Your task to perform on an android device: Search for Mexican restaurants on Maps Image 0: 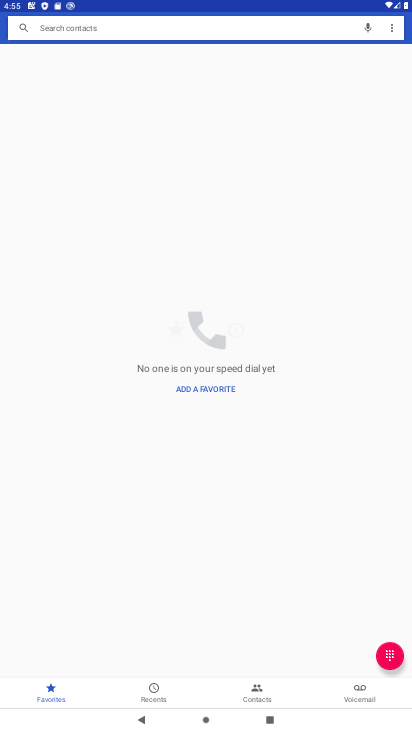
Step 0: press home button
Your task to perform on an android device: Search for Mexican restaurants on Maps Image 1: 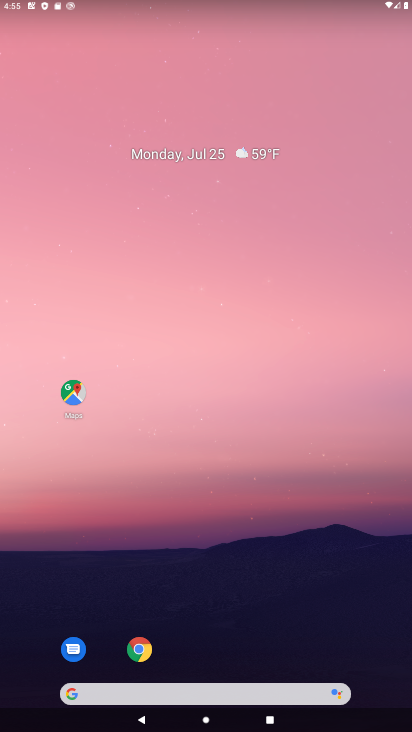
Step 1: drag from (273, 495) to (197, 1)
Your task to perform on an android device: Search for Mexican restaurants on Maps Image 2: 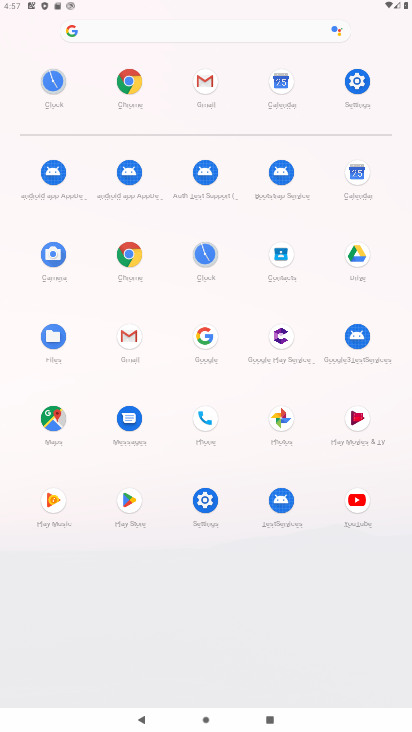
Step 2: click (44, 418)
Your task to perform on an android device: Search for Mexican restaurants on Maps Image 3: 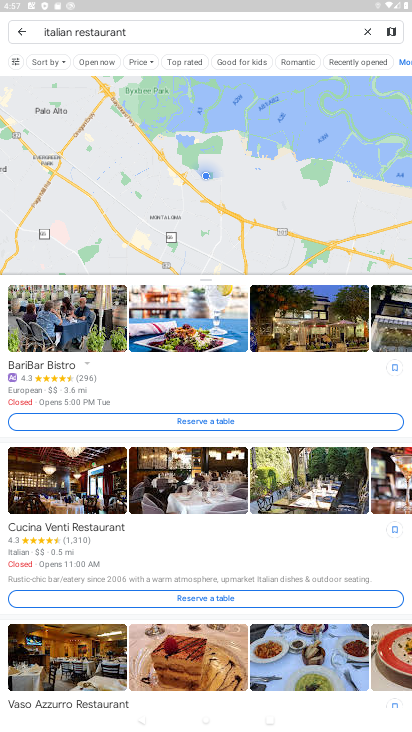
Step 3: click (20, 33)
Your task to perform on an android device: Search for Mexican restaurants on Maps Image 4: 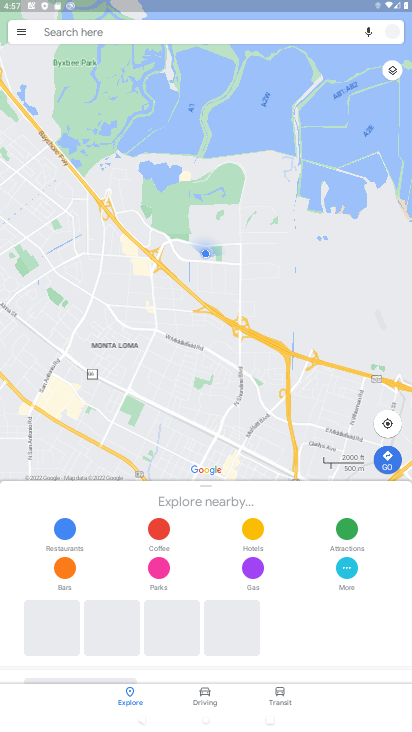
Step 4: click (140, 30)
Your task to perform on an android device: Search for Mexican restaurants on Maps Image 5: 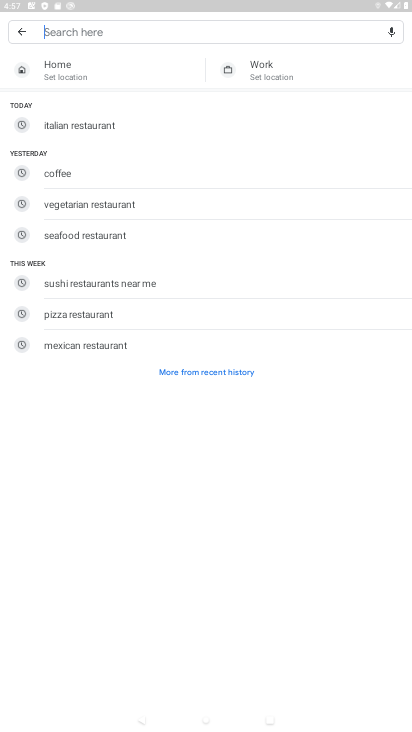
Step 5: click (82, 31)
Your task to perform on an android device: Search for Mexican restaurants on Maps Image 6: 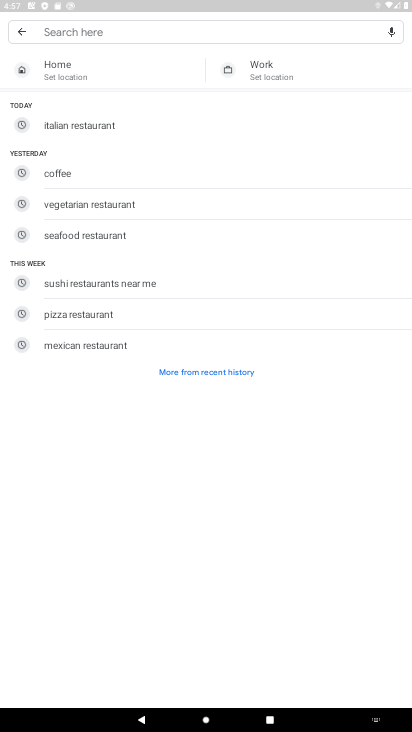
Step 6: type " Mexican restaurants"
Your task to perform on an android device: Search for Mexican restaurants on Maps Image 7: 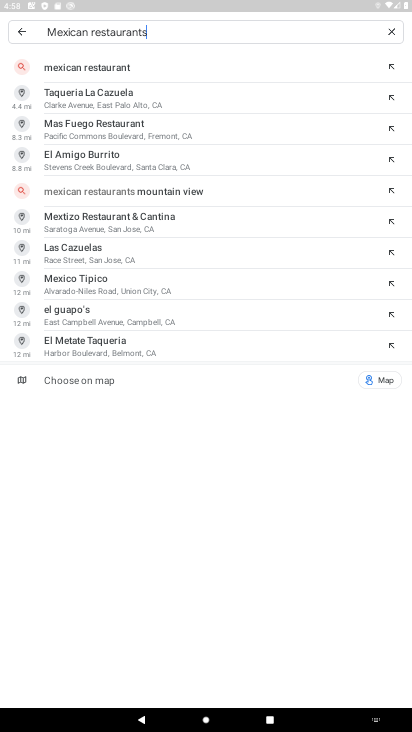
Step 7: task complete